Your task to perform on an android device: turn on location history Image 0: 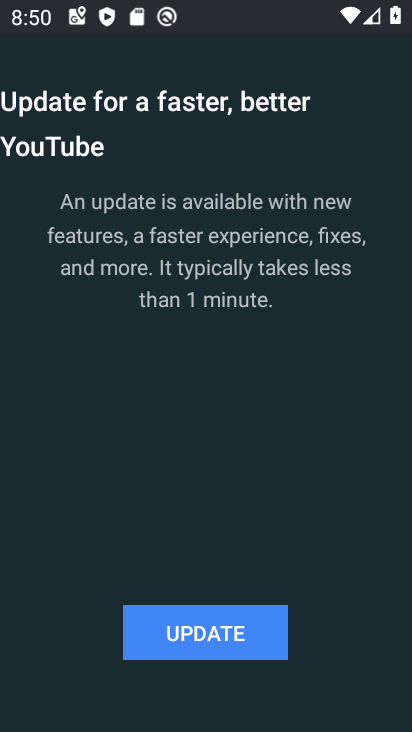
Step 0: drag from (272, 682) to (210, 287)
Your task to perform on an android device: turn on location history Image 1: 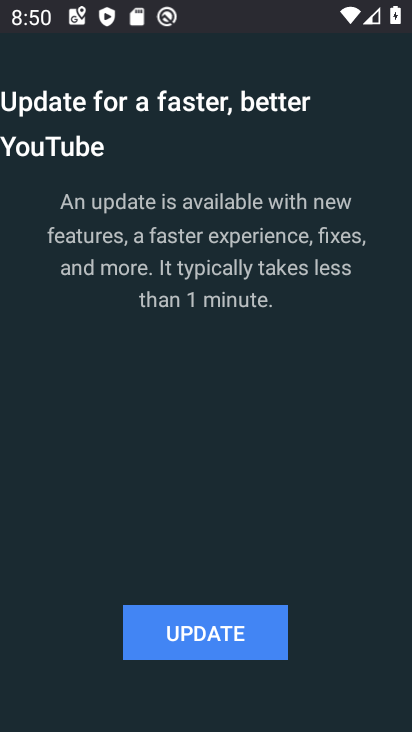
Step 1: drag from (272, 650) to (229, 200)
Your task to perform on an android device: turn on location history Image 2: 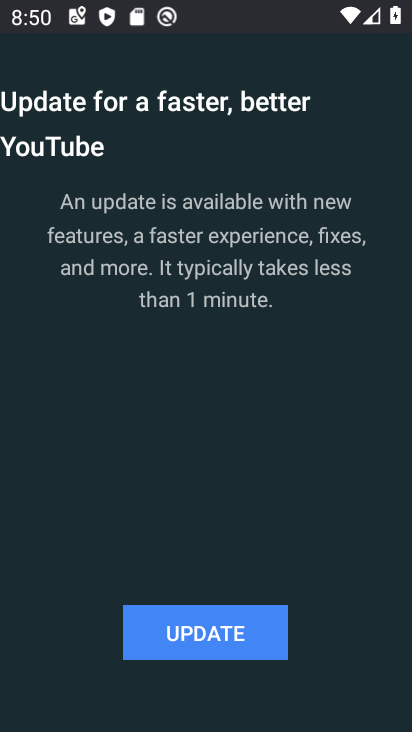
Step 2: press back button
Your task to perform on an android device: turn on location history Image 3: 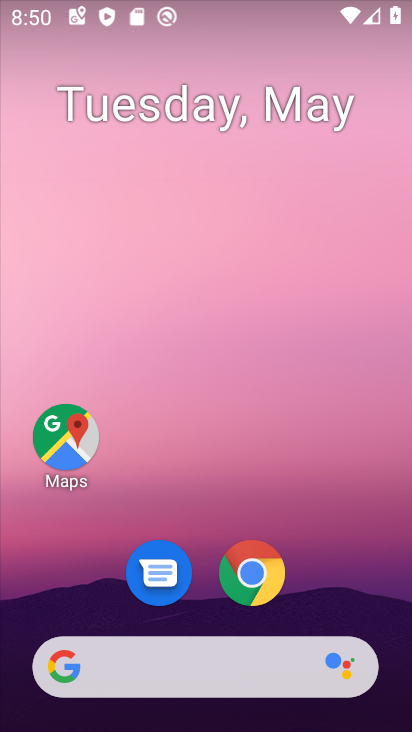
Step 3: drag from (138, 527) to (67, 187)
Your task to perform on an android device: turn on location history Image 4: 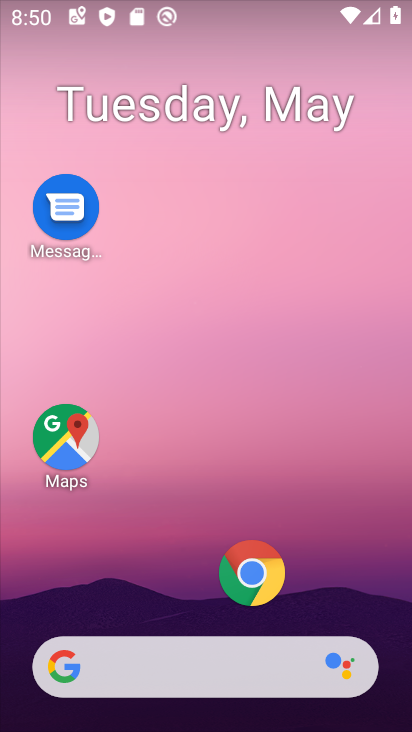
Step 4: drag from (180, 658) to (129, 64)
Your task to perform on an android device: turn on location history Image 5: 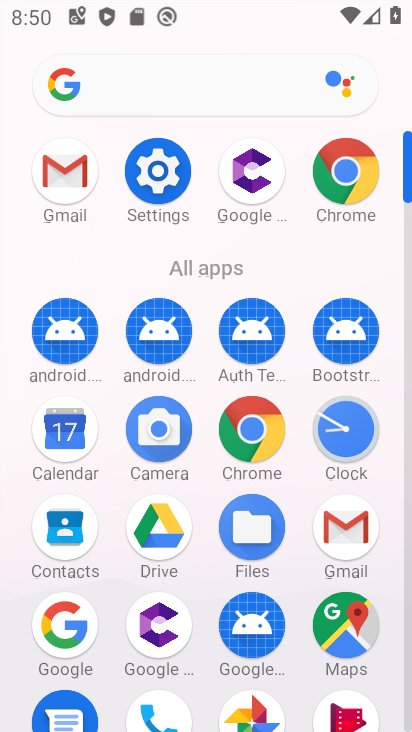
Step 5: click (338, 621)
Your task to perform on an android device: turn on location history Image 6: 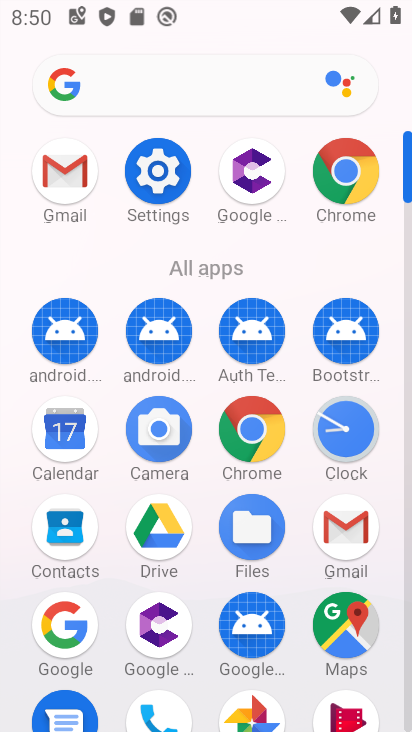
Step 6: click (337, 621)
Your task to perform on an android device: turn on location history Image 7: 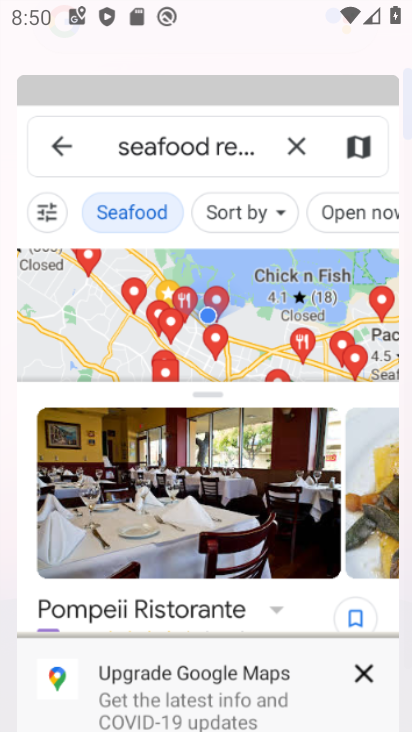
Step 7: click (348, 628)
Your task to perform on an android device: turn on location history Image 8: 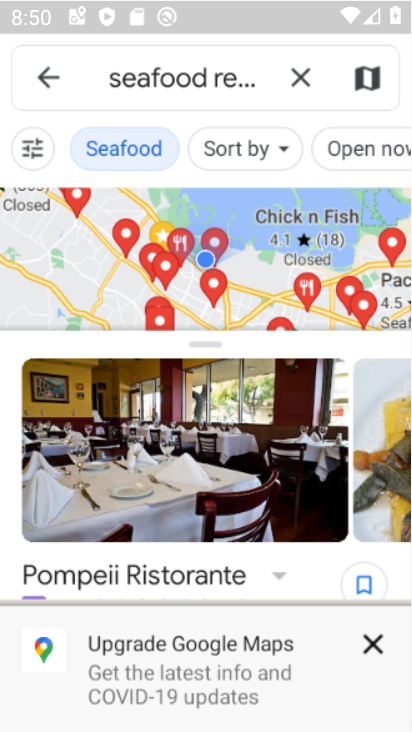
Step 8: click (348, 628)
Your task to perform on an android device: turn on location history Image 9: 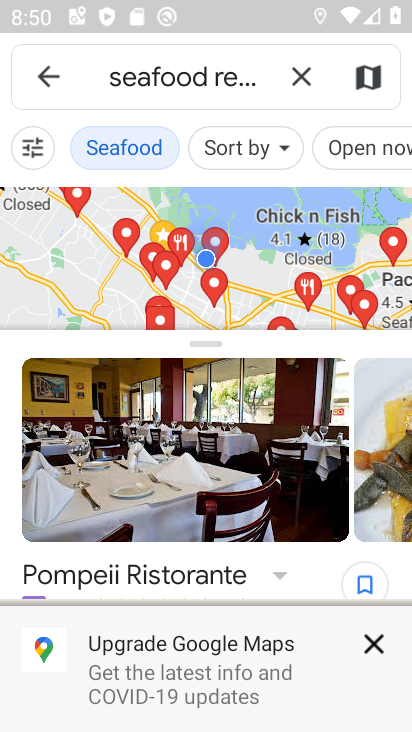
Step 9: click (54, 76)
Your task to perform on an android device: turn on location history Image 10: 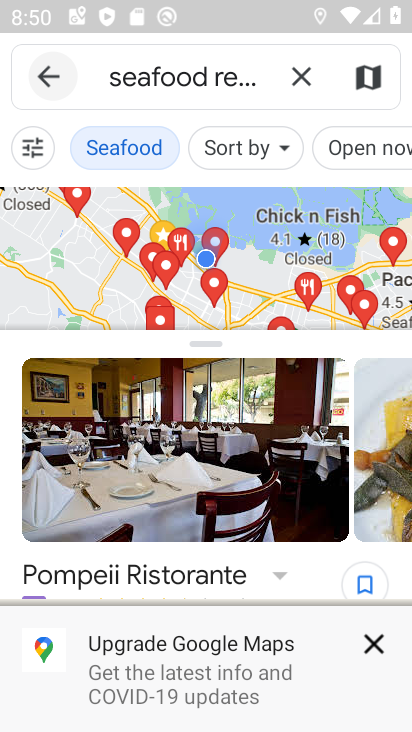
Step 10: click (51, 78)
Your task to perform on an android device: turn on location history Image 11: 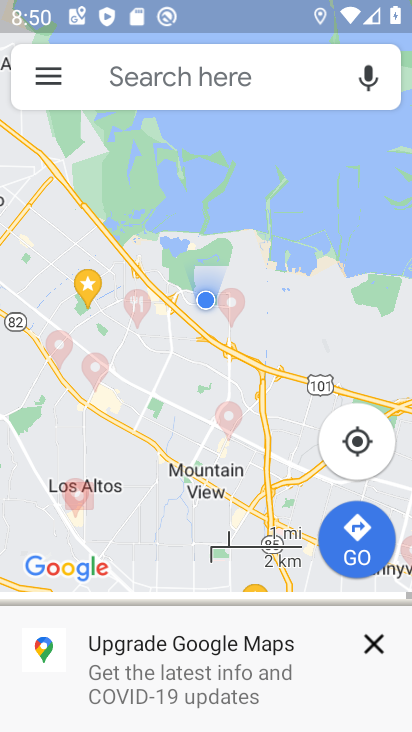
Step 11: click (49, 78)
Your task to perform on an android device: turn on location history Image 12: 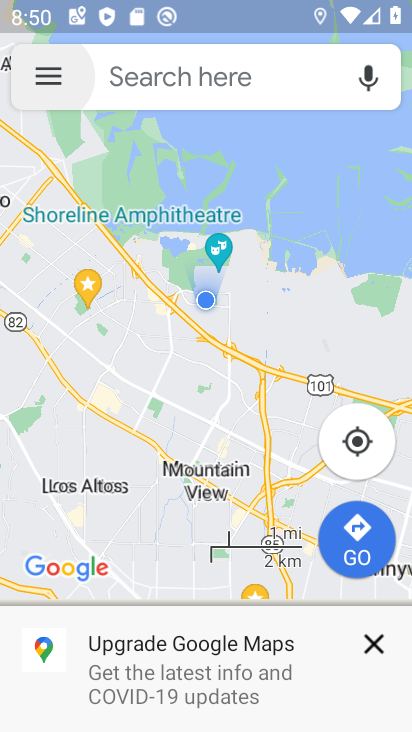
Step 12: click (48, 79)
Your task to perform on an android device: turn on location history Image 13: 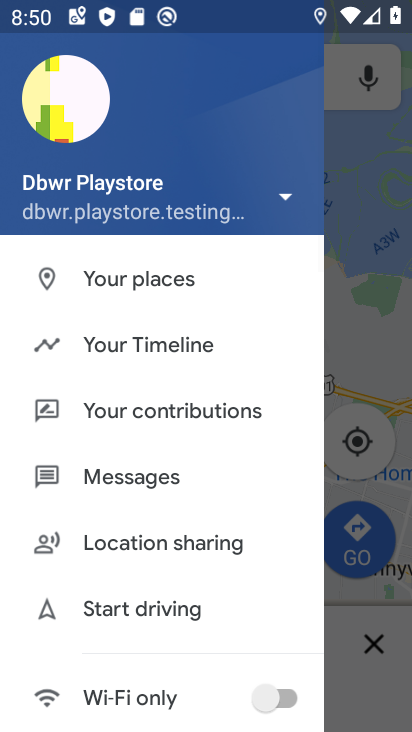
Step 13: click (186, 345)
Your task to perform on an android device: turn on location history Image 14: 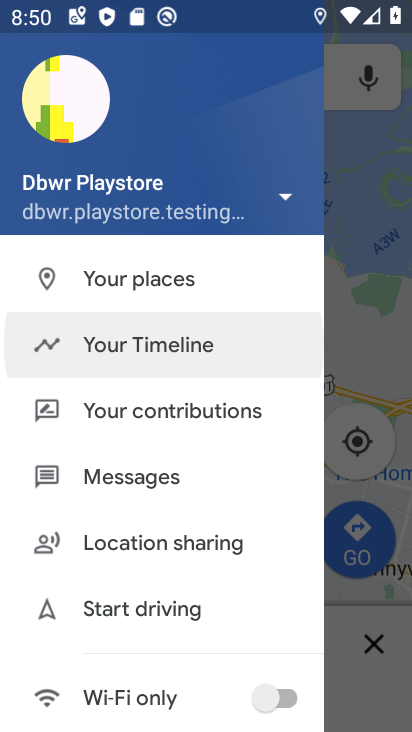
Step 14: click (189, 343)
Your task to perform on an android device: turn on location history Image 15: 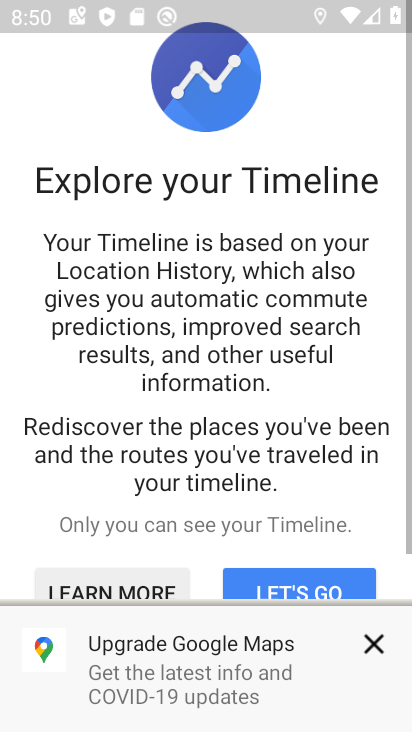
Step 15: click (197, 339)
Your task to perform on an android device: turn on location history Image 16: 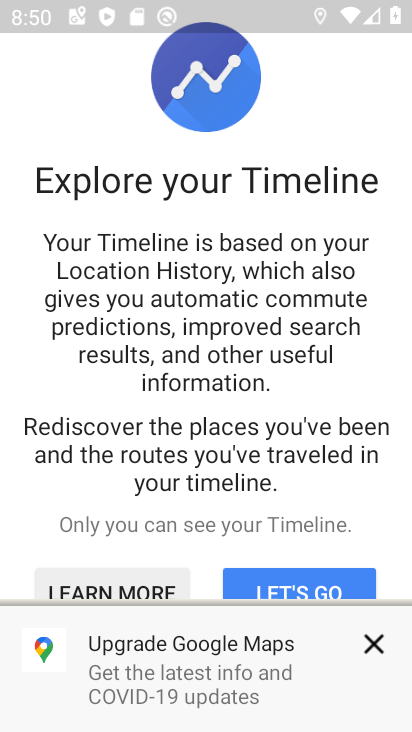
Step 16: click (291, 576)
Your task to perform on an android device: turn on location history Image 17: 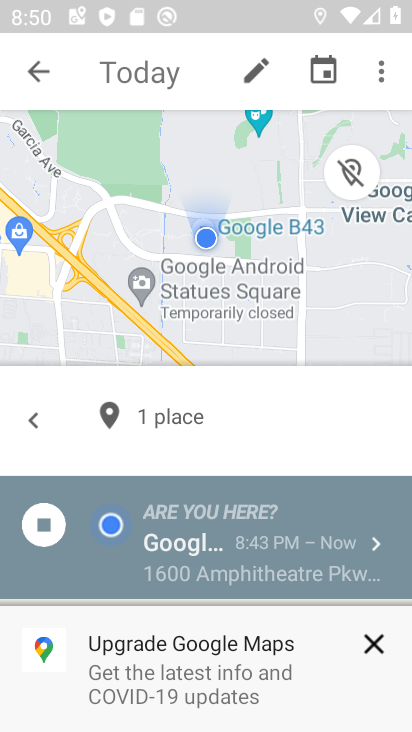
Step 17: click (49, 70)
Your task to perform on an android device: turn on location history Image 18: 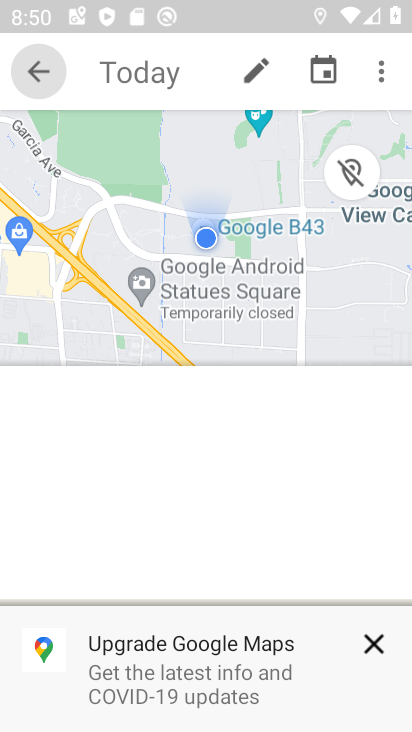
Step 18: click (47, 69)
Your task to perform on an android device: turn on location history Image 19: 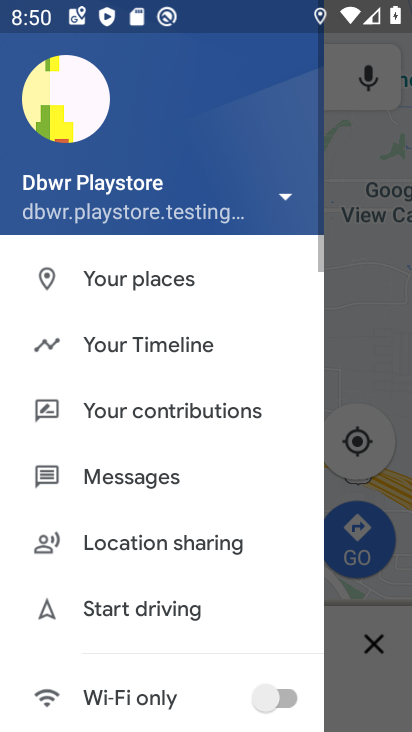
Step 19: click (47, 69)
Your task to perform on an android device: turn on location history Image 20: 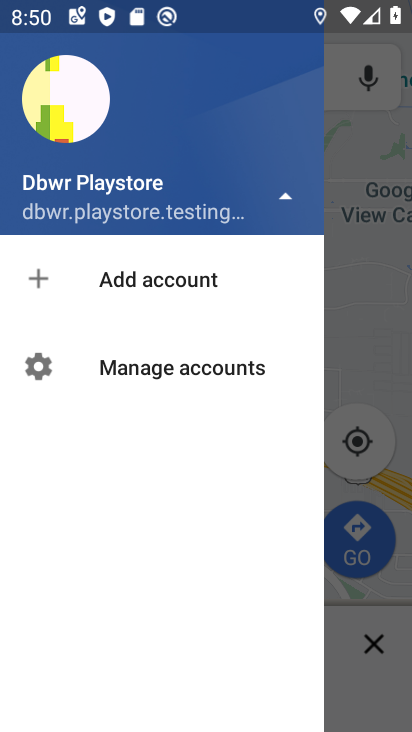
Step 20: click (149, 339)
Your task to perform on an android device: turn on location history Image 21: 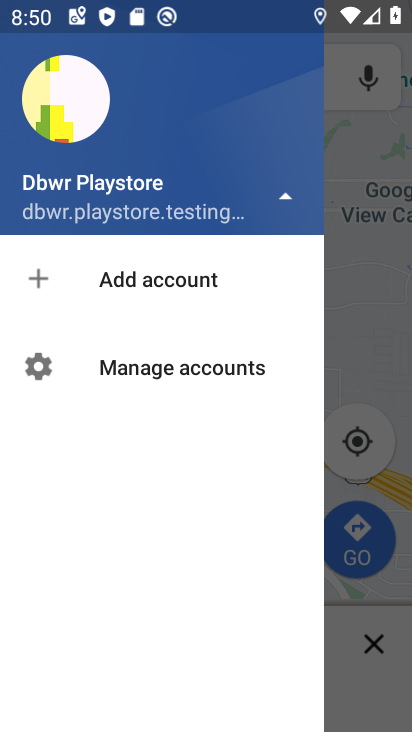
Step 21: click (149, 339)
Your task to perform on an android device: turn on location history Image 22: 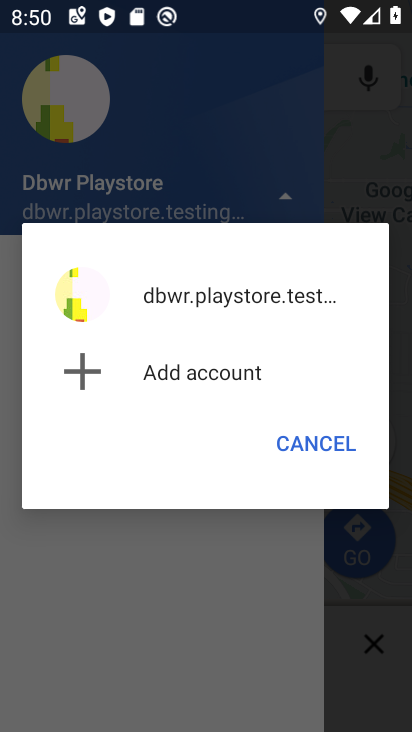
Step 22: click (311, 435)
Your task to perform on an android device: turn on location history Image 23: 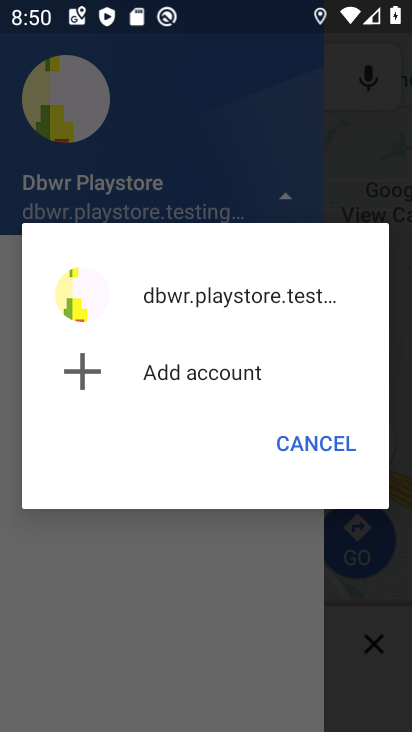
Step 23: click (318, 439)
Your task to perform on an android device: turn on location history Image 24: 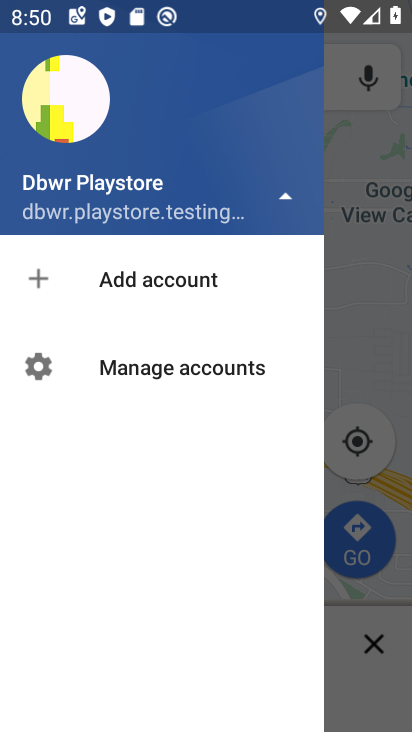
Step 24: click (275, 189)
Your task to perform on an android device: turn on location history Image 25: 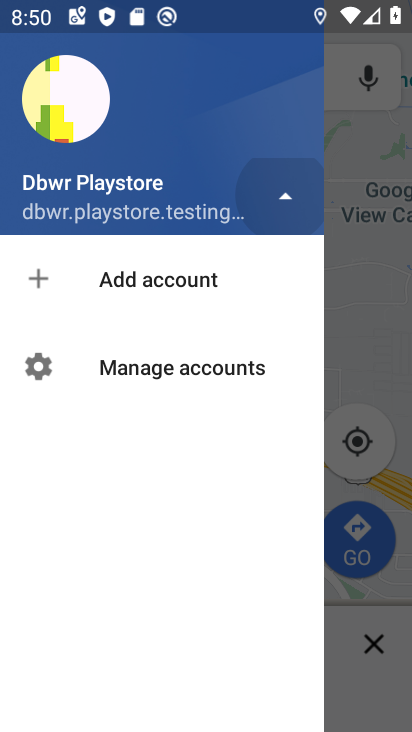
Step 25: click (276, 190)
Your task to perform on an android device: turn on location history Image 26: 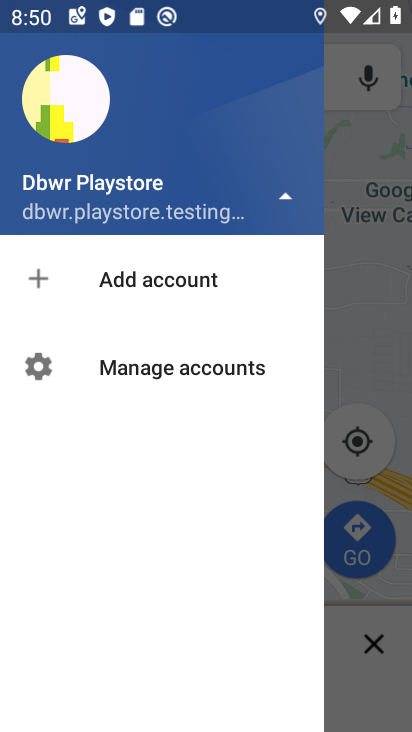
Step 26: click (291, 192)
Your task to perform on an android device: turn on location history Image 27: 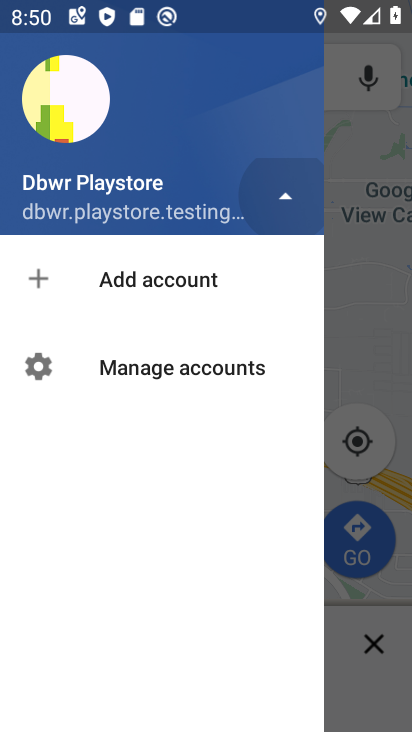
Step 27: click (291, 193)
Your task to perform on an android device: turn on location history Image 28: 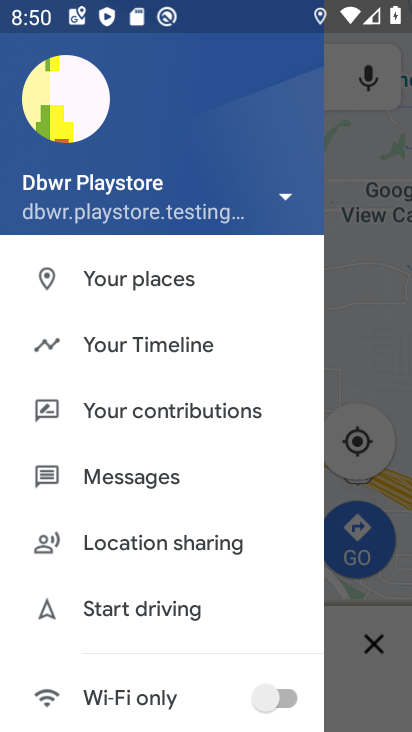
Step 28: click (291, 193)
Your task to perform on an android device: turn on location history Image 29: 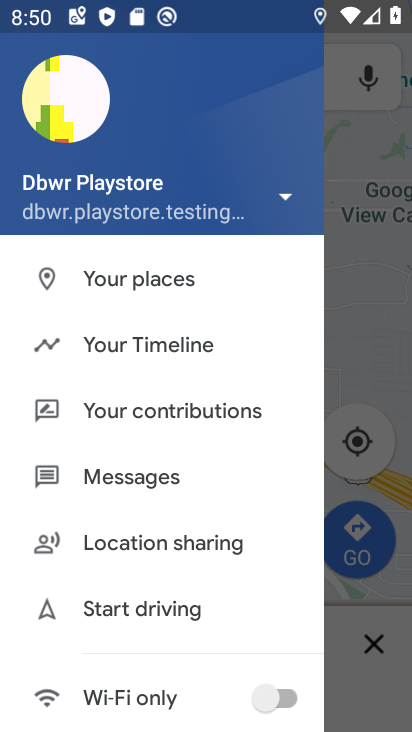
Step 29: click (181, 351)
Your task to perform on an android device: turn on location history Image 30: 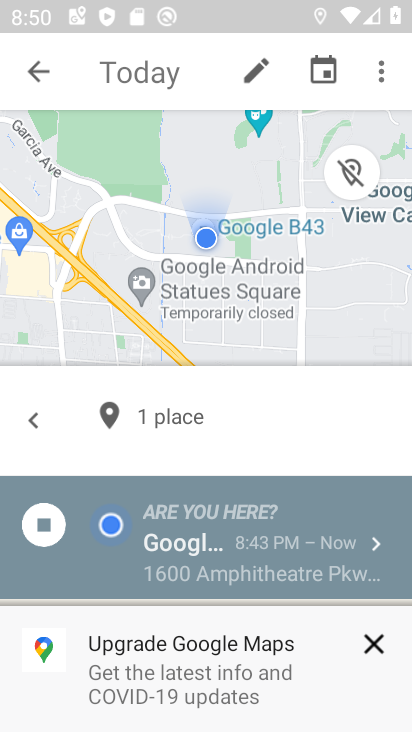
Step 30: drag from (379, 79) to (224, 471)
Your task to perform on an android device: turn on location history Image 31: 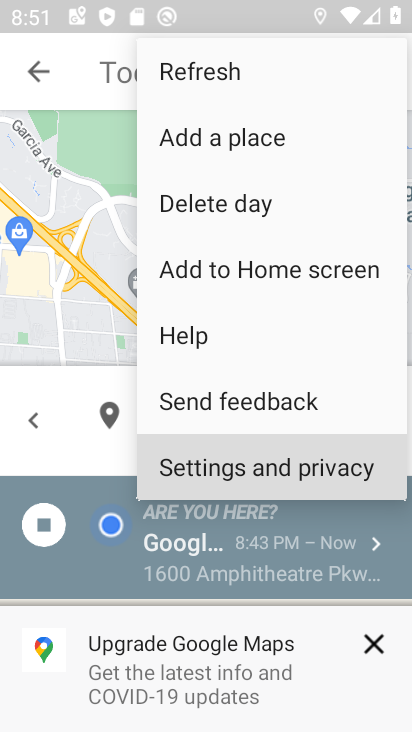
Step 31: click (230, 461)
Your task to perform on an android device: turn on location history Image 32: 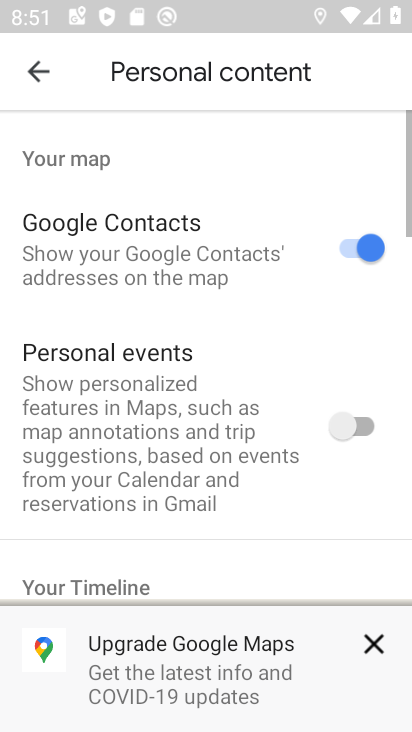
Step 32: drag from (162, 497) to (158, 187)
Your task to perform on an android device: turn on location history Image 33: 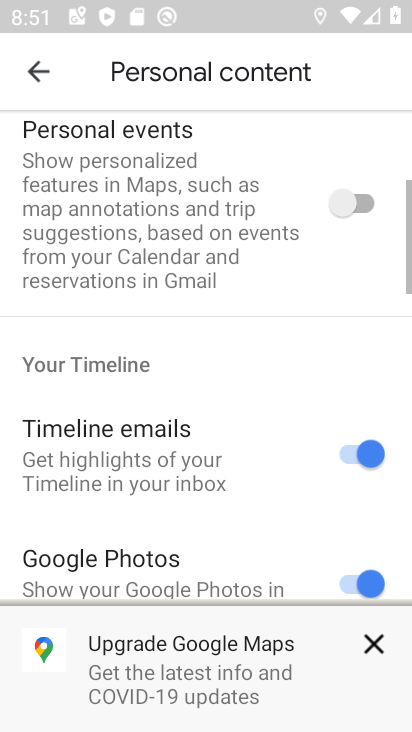
Step 33: drag from (183, 473) to (179, 168)
Your task to perform on an android device: turn on location history Image 34: 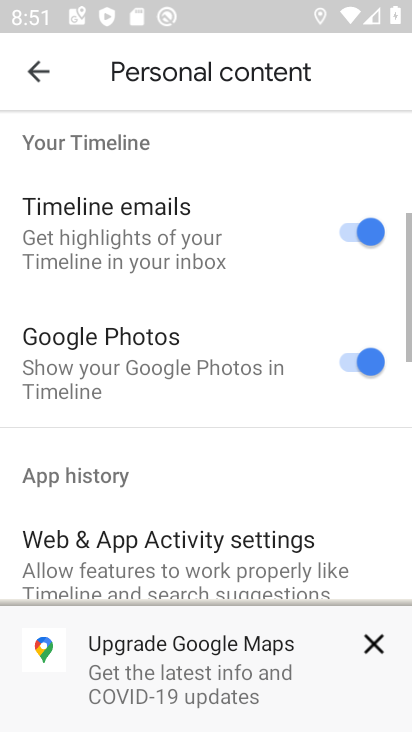
Step 34: drag from (218, 472) to (208, 210)
Your task to perform on an android device: turn on location history Image 35: 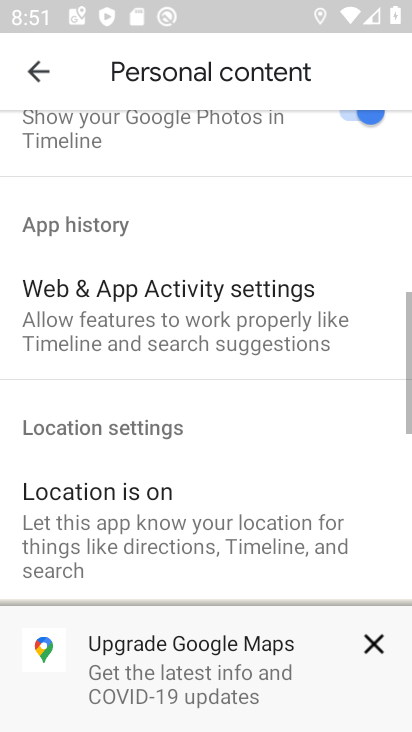
Step 35: drag from (225, 574) to (217, 229)
Your task to perform on an android device: turn on location history Image 36: 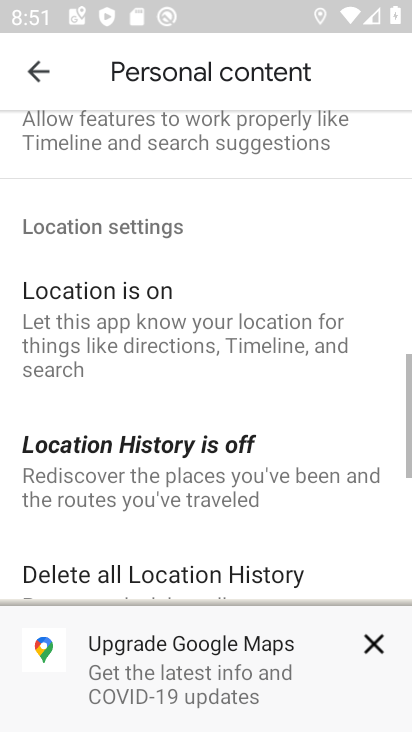
Step 36: drag from (180, 620) to (180, 256)
Your task to perform on an android device: turn on location history Image 37: 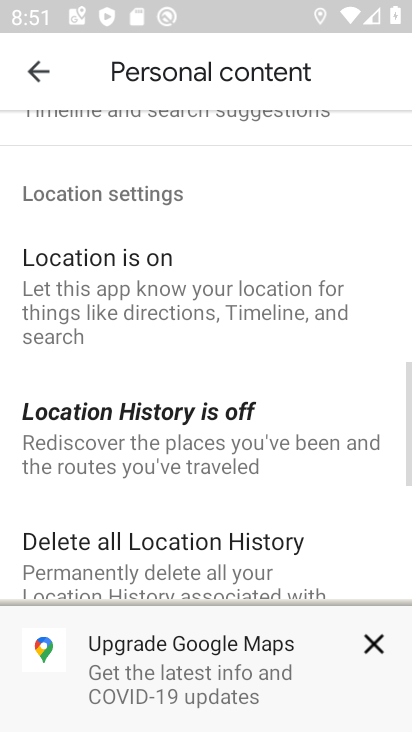
Step 37: drag from (178, 450) to (199, 203)
Your task to perform on an android device: turn on location history Image 38: 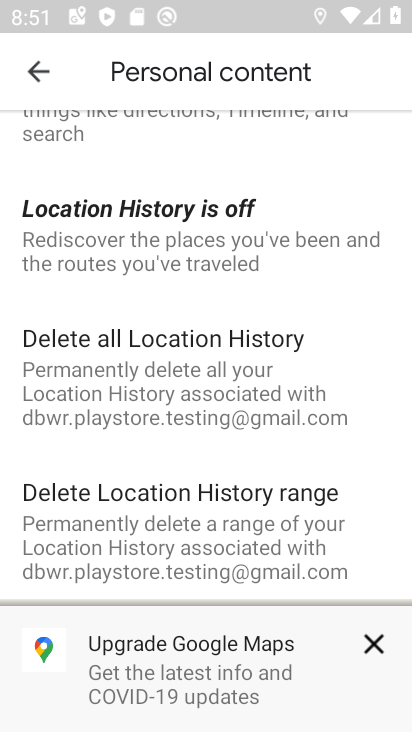
Step 38: click (166, 263)
Your task to perform on an android device: turn on location history Image 39: 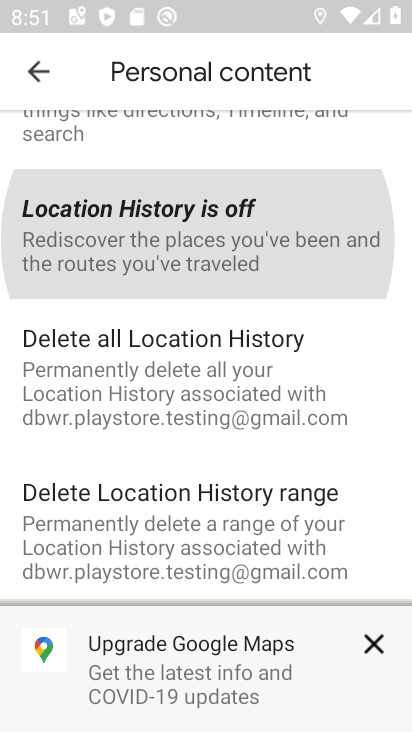
Step 39: click (171, 248)
Your task to perform on an android device: turn on location history Image 40: 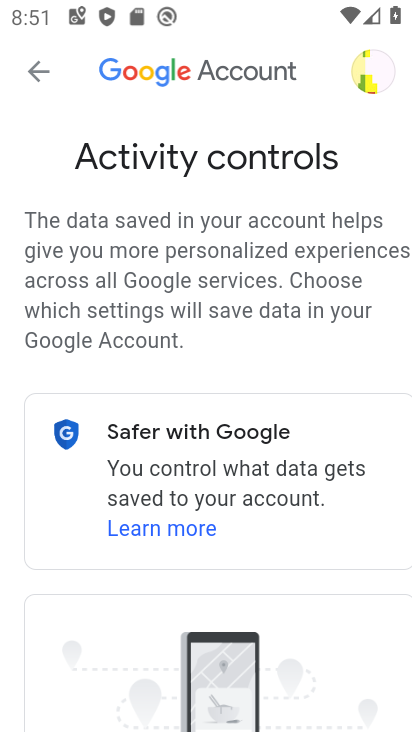
Step 40: task complete